Your task to perform on an android device: Open the web browser Image 0: 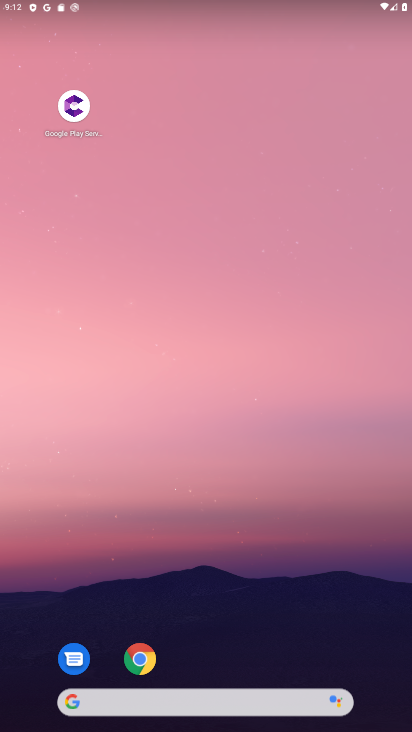
Step 0: click (148, 656)
Your task to perform on an android device: Open the web browser Image 1: 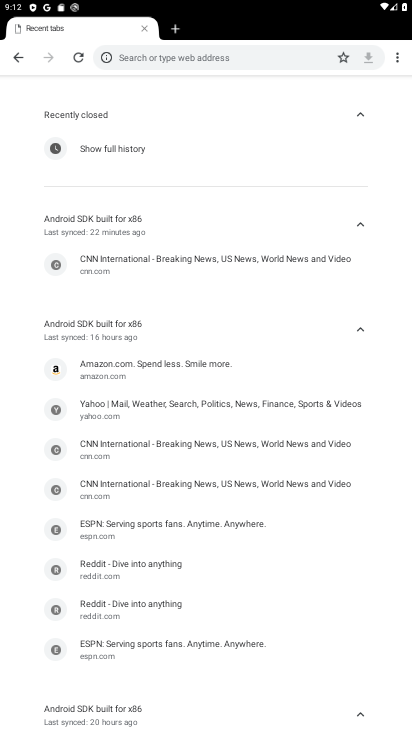
Step 1: task complete